Your task to perform on an android device: check the backup settings in the google photos Image 0: 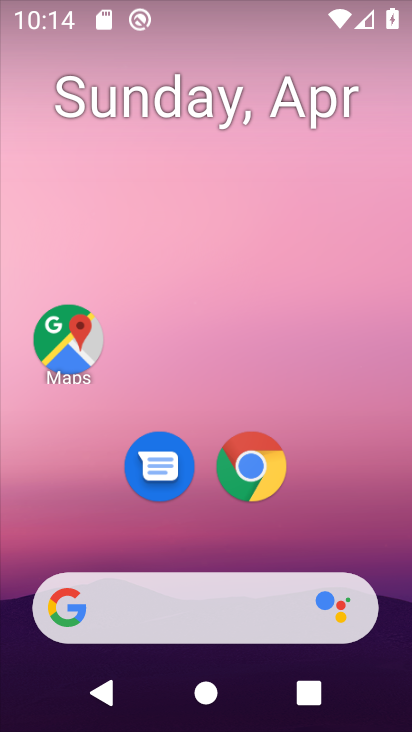
Step 0: drag from (342, 518) to (350, 93)
Your task to perform on an android device: check the backup settings in the google photos Image 1: 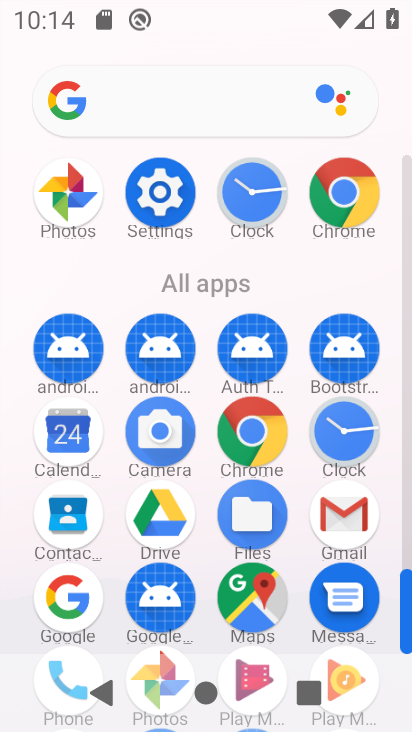
Step 1: drag from (392, 470) to (398, 191)
Your task to perform on an android device: check the backup settings in the google photos Image 2: 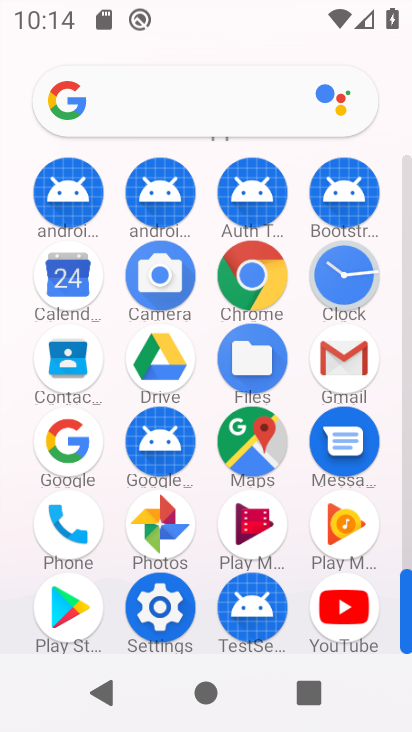
Step 2: click (166, 537)
Your task to perform on an android device: check the backup settings in the google photos Image 3: 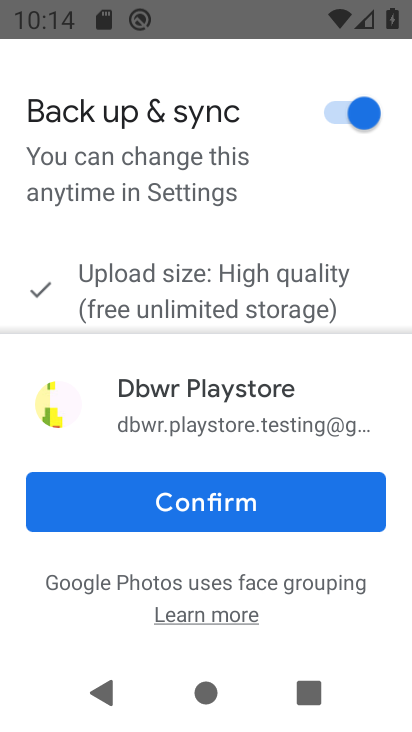
Step 3: click (222, 502)
Your task to perform on an android device: check the backup settings in the google photos Image 4: 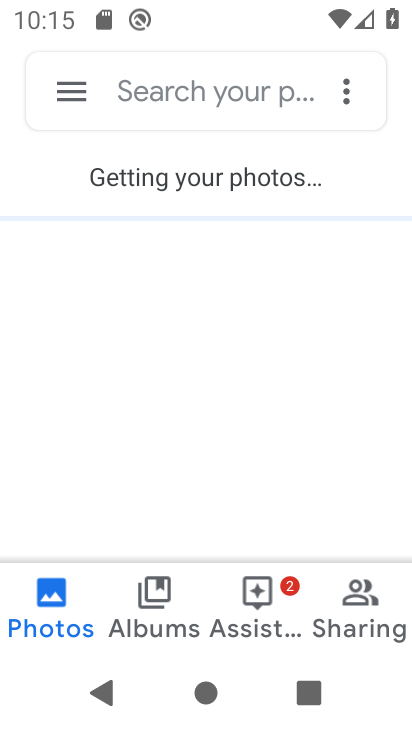
Step 4: click (84, 94)
Your task to perform on an android device: check the backup settings in the google photos Image 5: 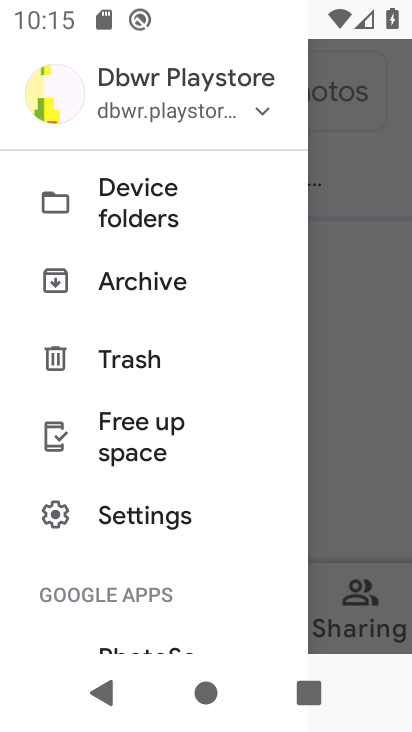
Step 5: drag from (239, 522) to (240, 363)
Your task to perform on an android device: check the backup settings in the google photos Image 6: 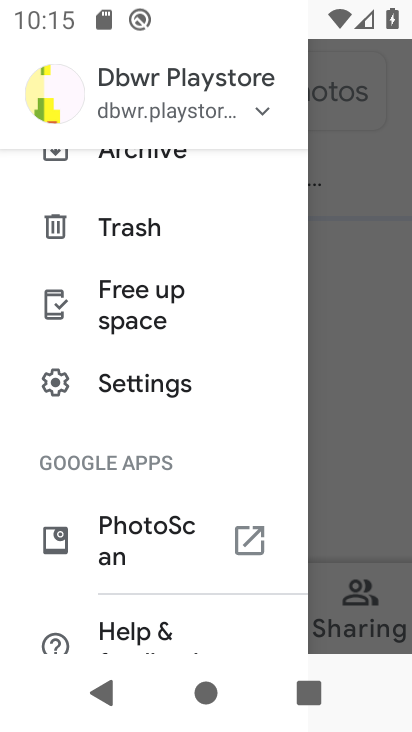
Step 6: click (179, 376)
Your task to perform on an android device: check the backup settings in the google photos Image 7: 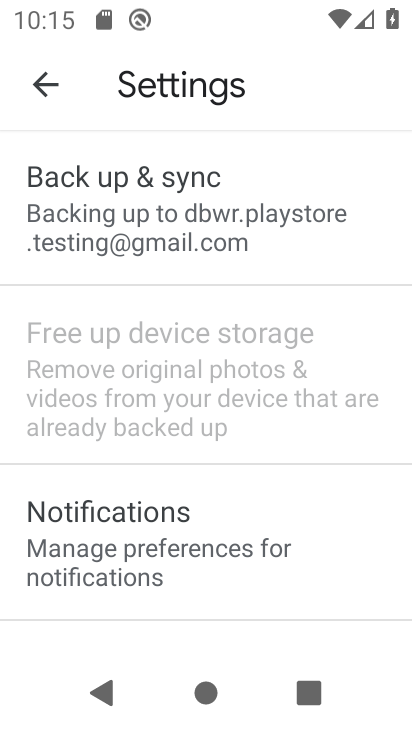
Step 7: click (197, 221)
Your task to perform on an android device: check the backup settings in the google photos Image 8: 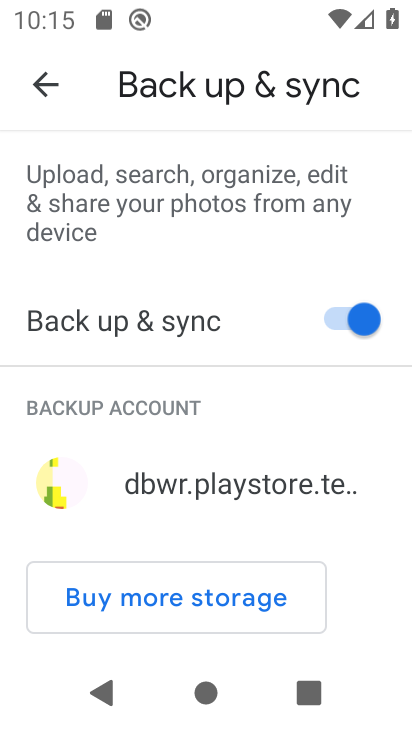
Step 8: task complete